Your task to perform on an android device: Show me the alarms in the clock app Image 0: 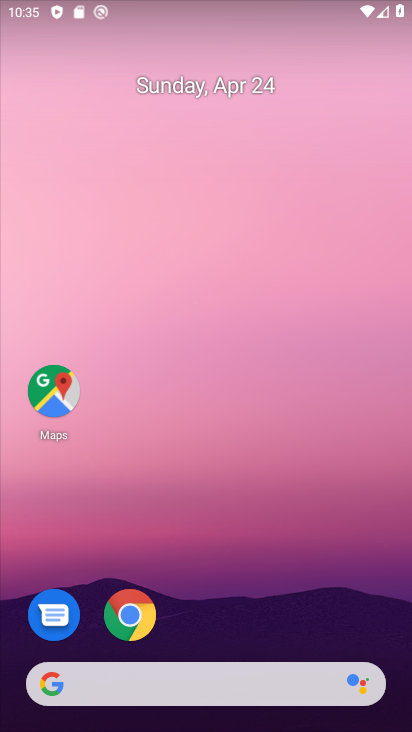
Step 0: drag from (211, 639) to (203, 40)
Your task to perform on an android device: Show me the alarms in the clock app Image 1: 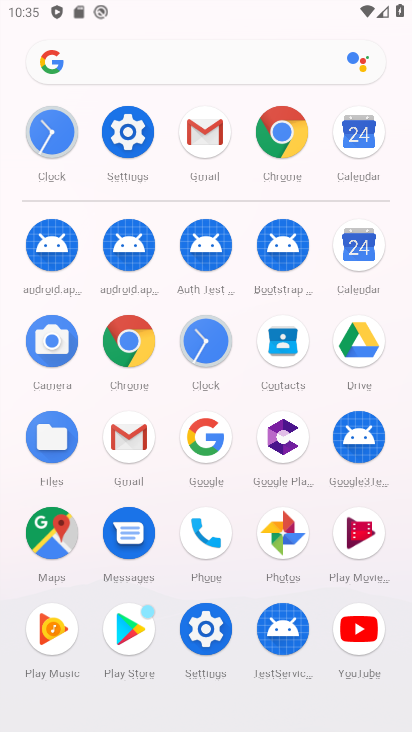
Step 1: click (205, 333)
Your task to perform on an android device: Show me the alarms in the clock app Image 2: 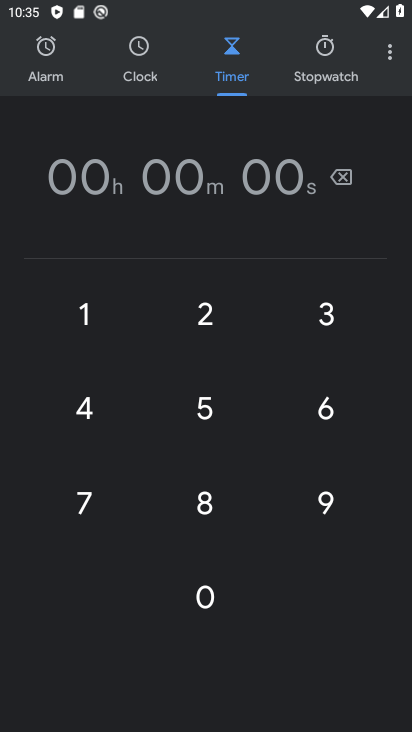
Step 2: click (51, 56)
Your task to perform on an android device: Show me the alarms in the clock app Image 3: 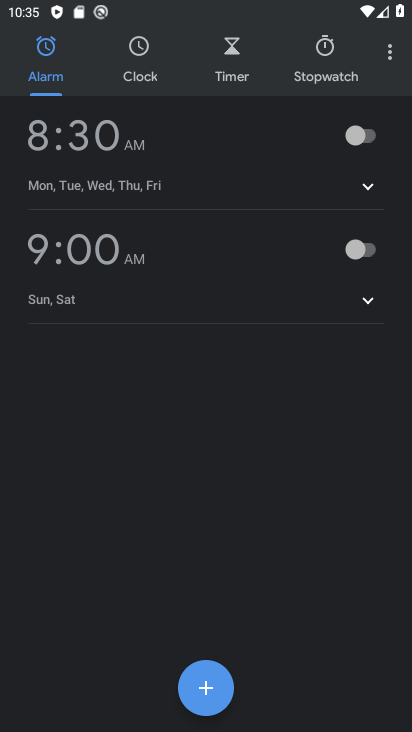
Step 3: task complete